Your task to perform on an android device: Search for flights from San Francisco to Tokyo Image 0: 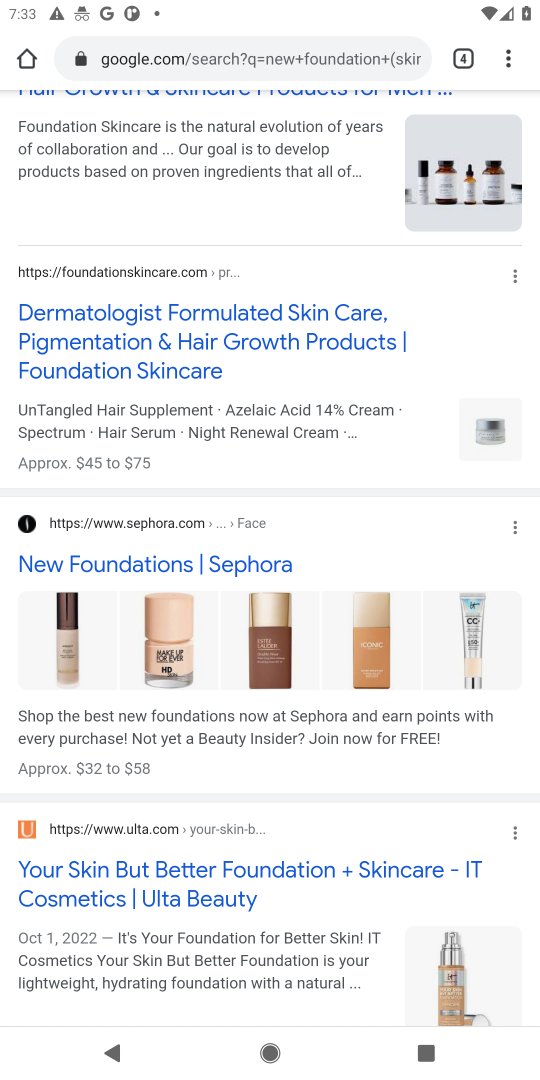
Step 0: click (314, 48)
Your task to perform on an android device: Search for flights from San Francisco to Tokyo Image 1: 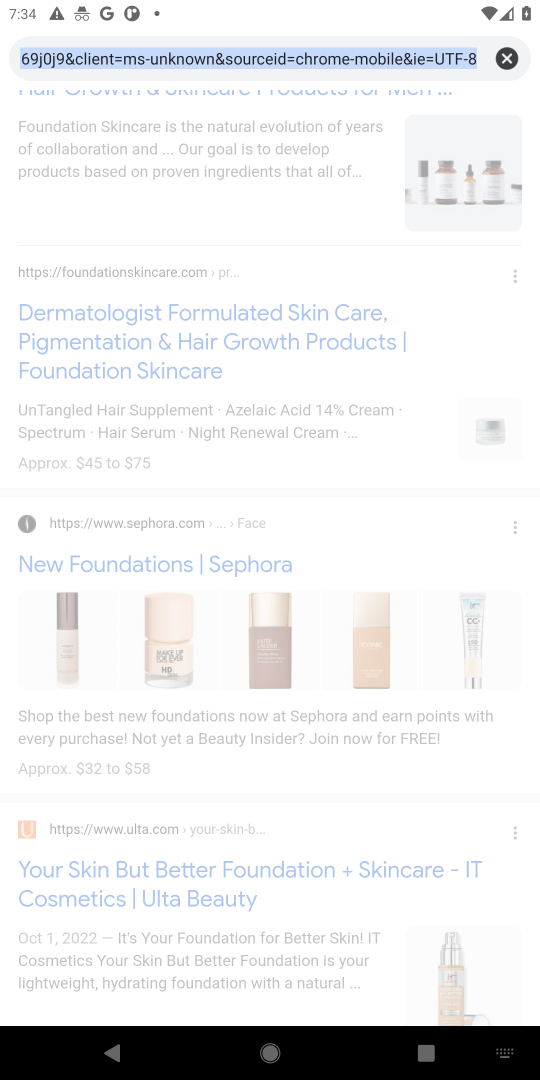
Step 1: click (506, 56)
Your task to perform on an android device: Search for flights from San Francisco to Tokyo Image 2: 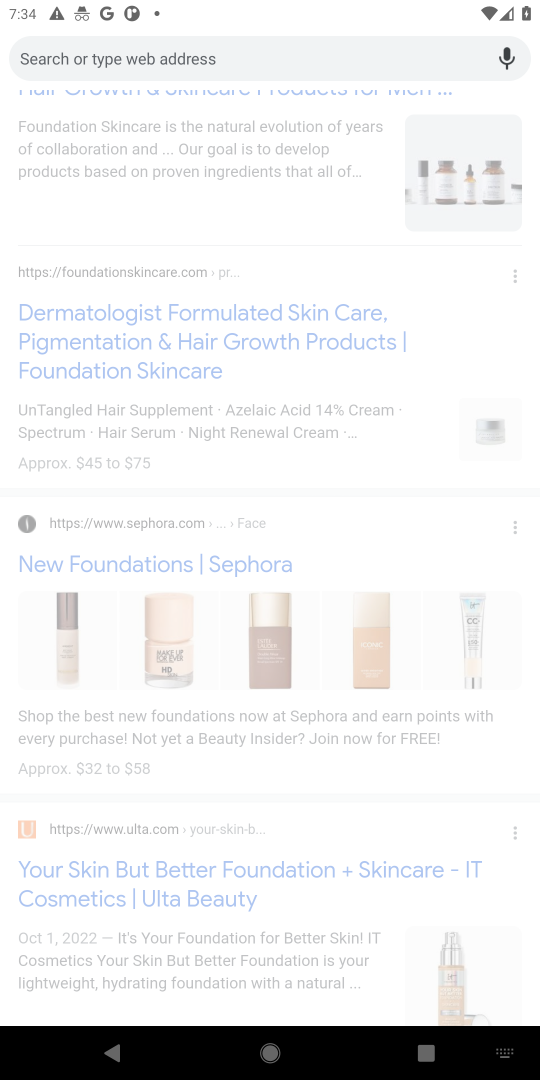
Step 2: type "flights from San Francisco to Tokyo"
Your task to perform on an android device: Search for flights from San Francisco to Tokyo Image 3: 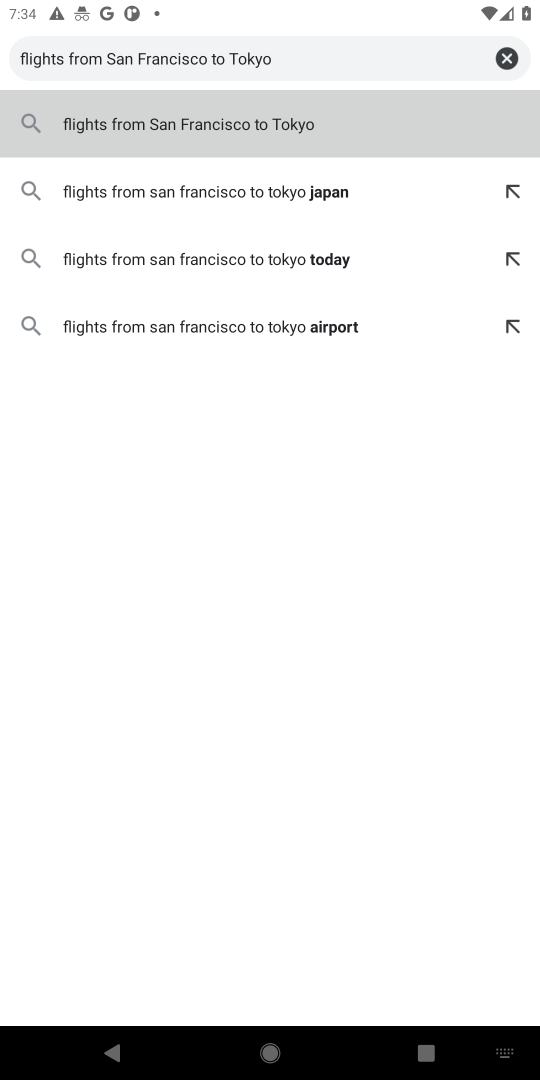
Step 3: click (185, 121)
Your task to perform on an android device: Search for flights from San Francisco to Tokyo Image 4: 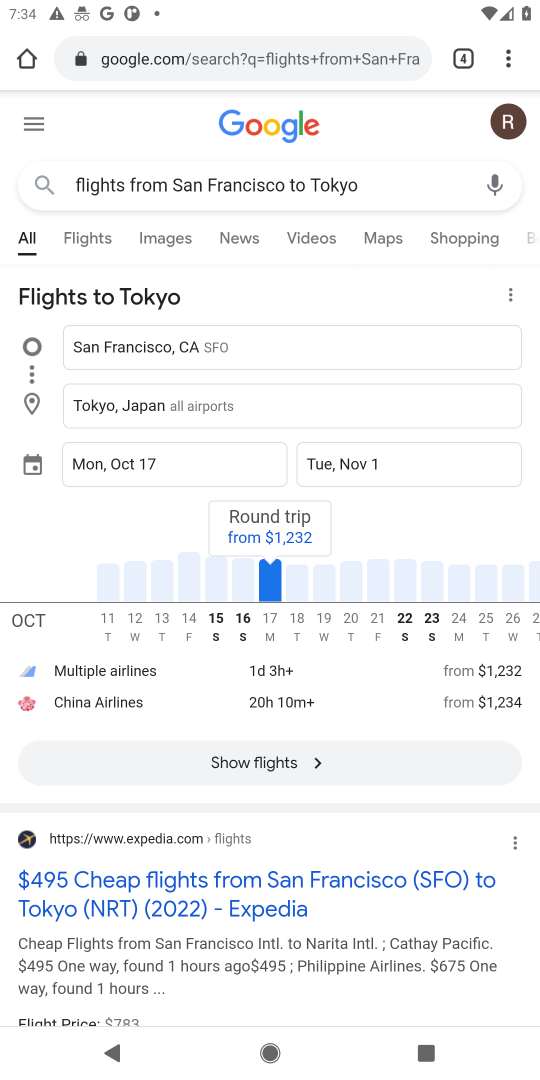
Step 4: click (273, 747)
Your task to perform on an android device: Search for flights from San Francisco to Tokyo Image 5: 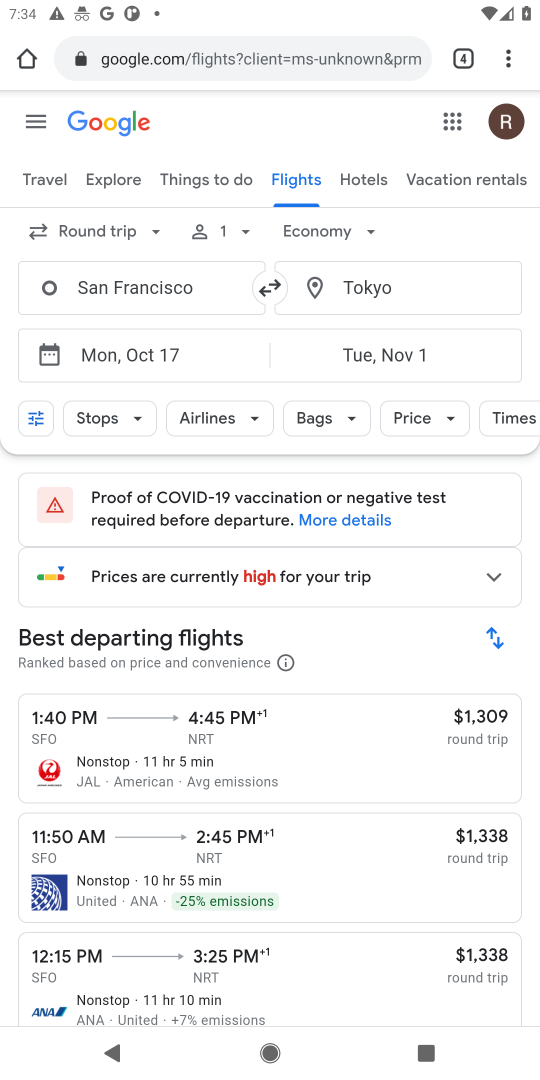
Step 5: task complete